Your task to perform on an android device: change keyboard looks Image 0: 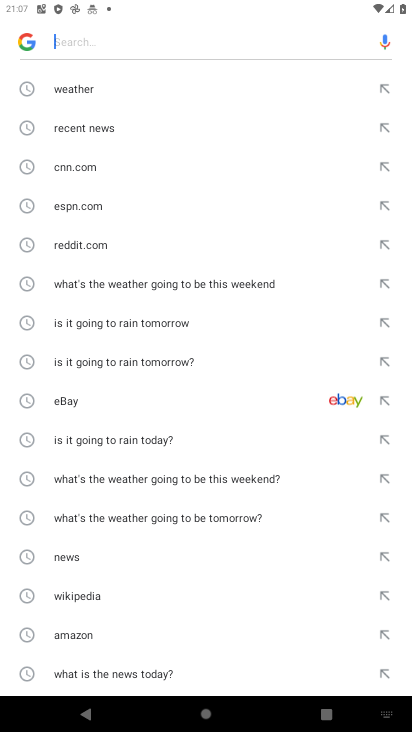
Step 0: press home button
Your task to perform on an android device: change keyboard looks Image 1: 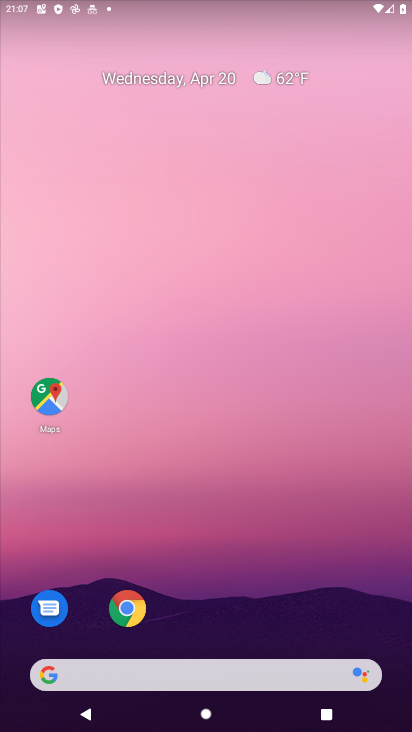
Step 1: drag from (231, 631) to (199, 0)
Your task to perform on an android device: change keyboard looks Image 2: 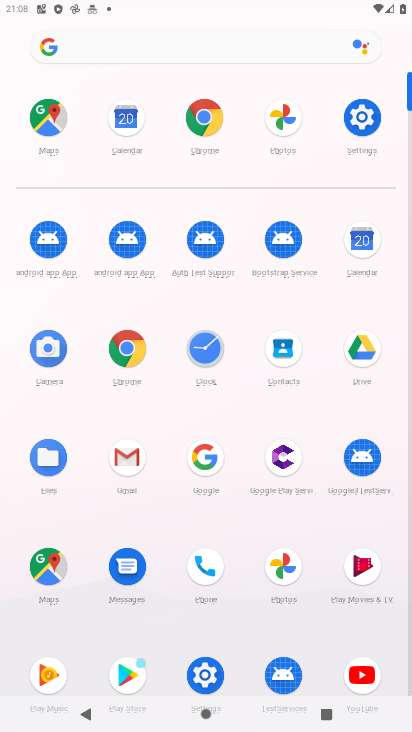
Step 2: click (202, 678)
Your task to perform on an android device: change keyboard looks Image 3: 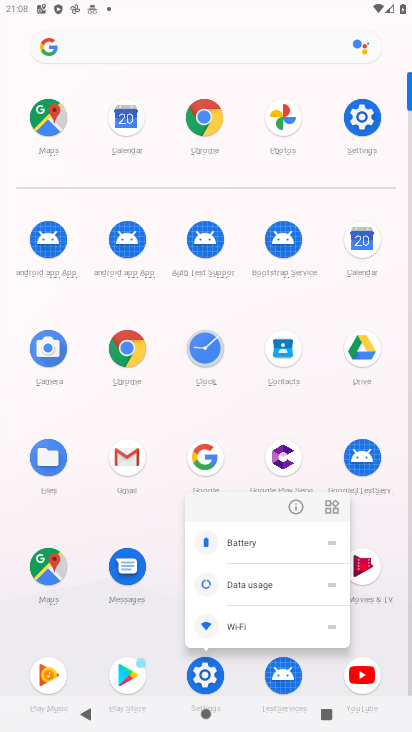
Step 3: click (202, 678)
Your task to perform on an android device: change keyboard looks Image 4: 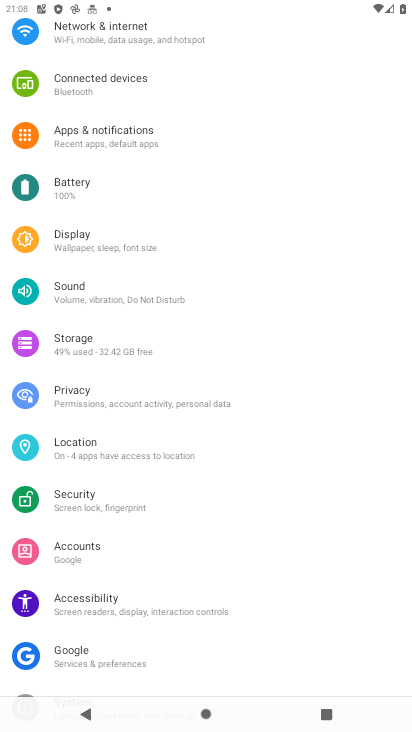
Step 4: drag from (158, 650) to (213, 132)
Your task to perform on an android device: change keyboard looks Image 5: 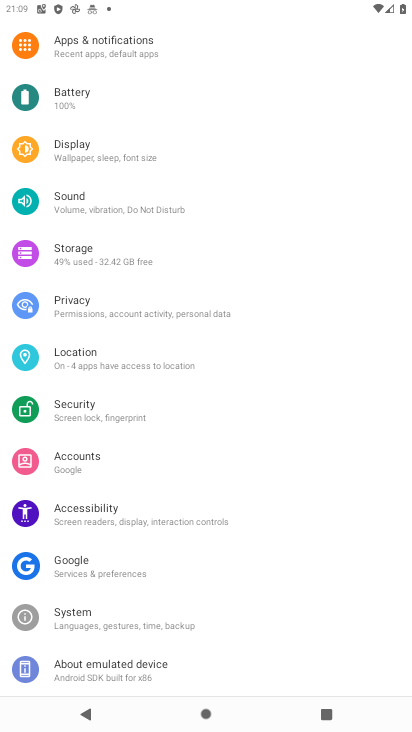
Step 5: click (109, 623)
Your task to perform on an android device: change keyboard looks Image 6: 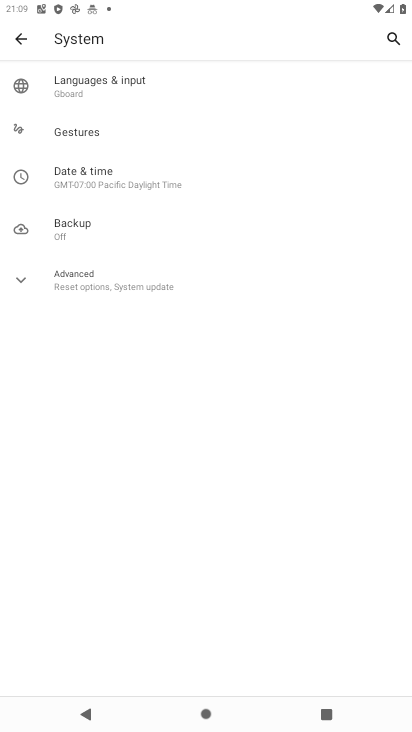
Step 6: click (76, 98)
Your task to perform on an android device: change keyboard looks Image 7: 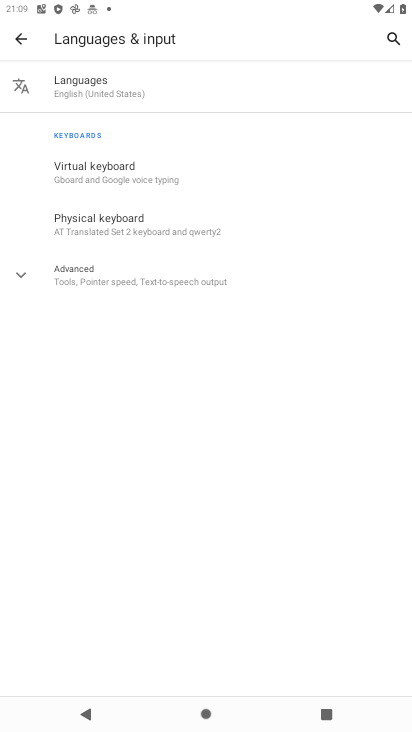
Step 7: click (111, 166)
Your task to perform on an android device: change keyboard looks Image 8: 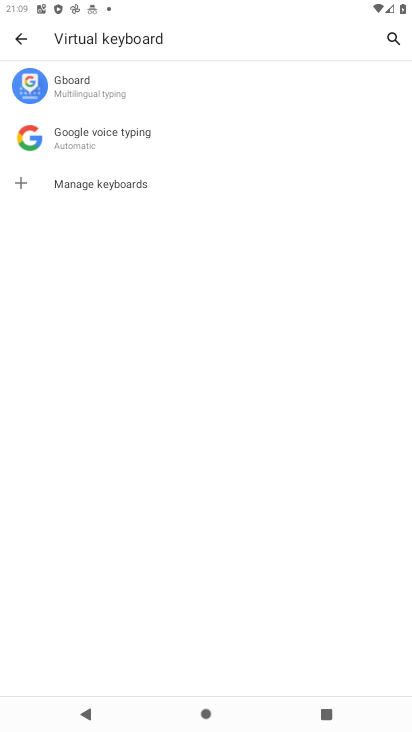
Step 8: click (85, 88)
Your task to perform on an android device: change keyboard looks Image 9: 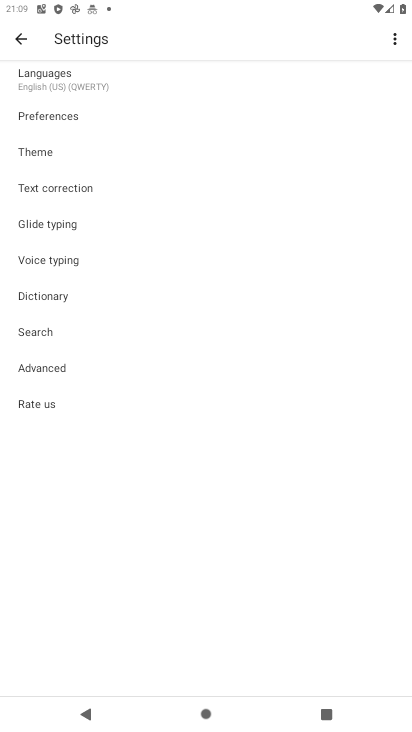
Step 9: click (45, 148)
Your task to perform on an android device: change keyboard looks Image 10: 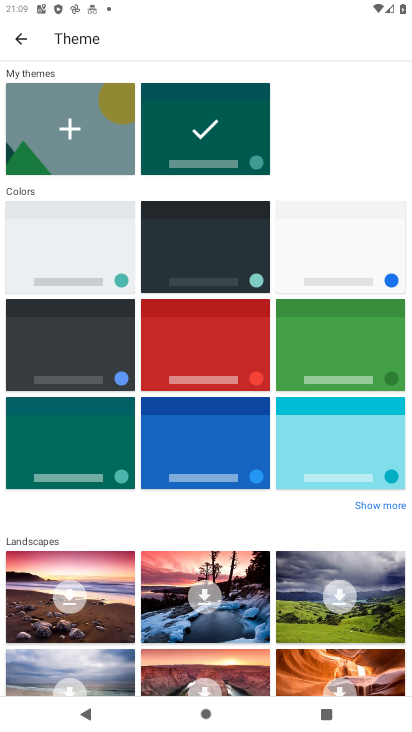
Step 10: click (226, 474)
Your task to perform on an android device: change keyboard looks Image 11: 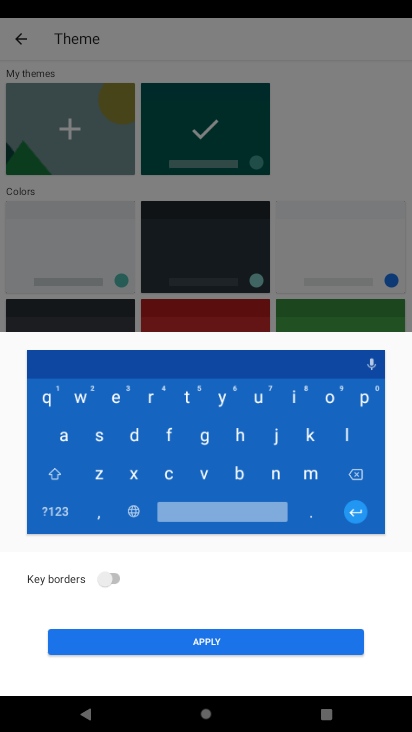
Step 11: click (110, 579)
Your task to perform on an android device: change keyboard looks Image 12: 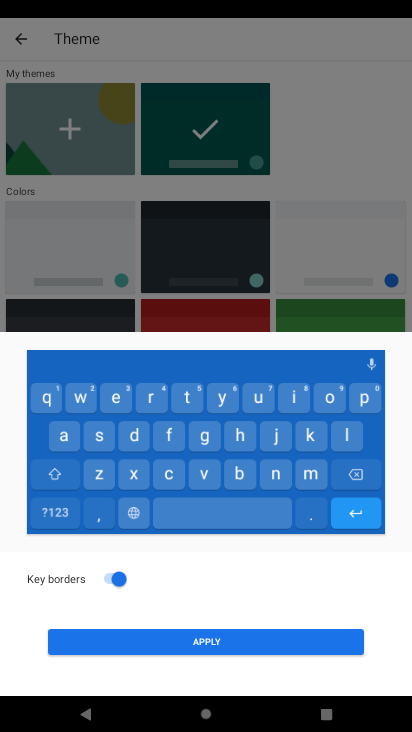
Step 12: click (122, 651)
Your task to perform on an android device: change keyboard looks Image 13: 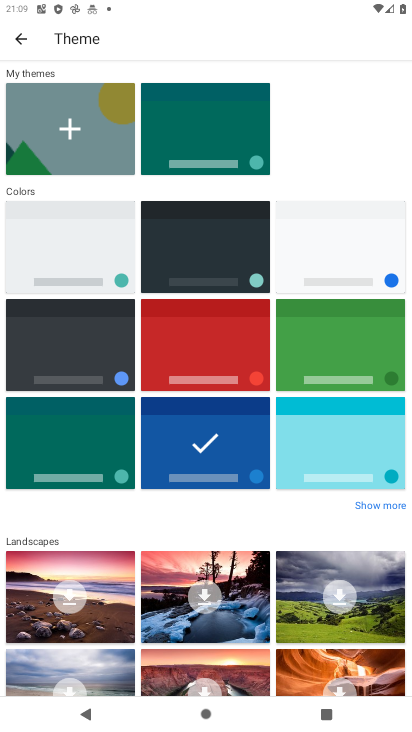
Step 13: task complete